Your task to perform on an android device: change the clock display to show seconds Image 0: 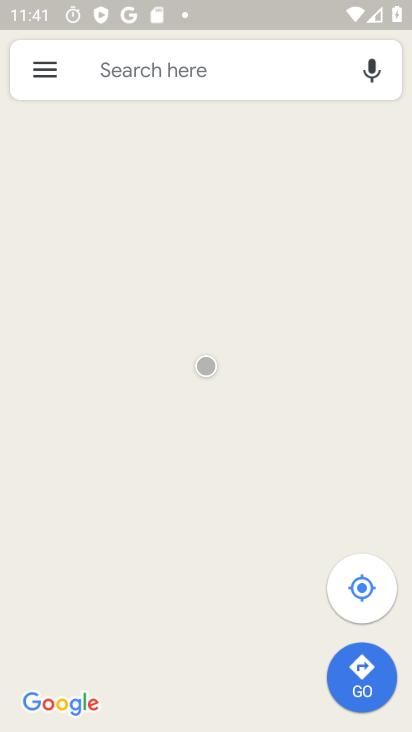
Step 0: press back button
Your task to perform on an android device: change the clock display to show seconds Image 1: 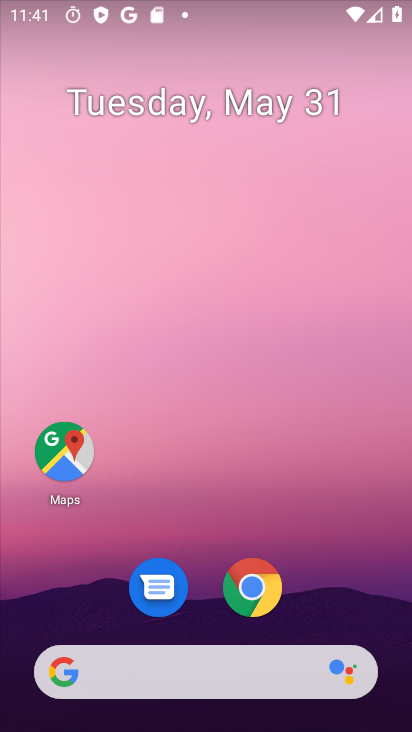
Step 1: drag from (309, 561) to (231, 151)
Your task to perform on an android device: change the clock display to show seconds Image 2: 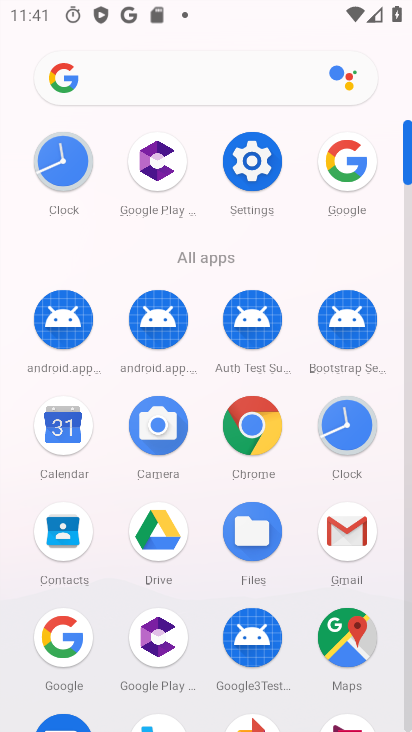
Step 2: click (64, 160)
Your task to perform on an android device: change the clock display to show seconds Image 3: 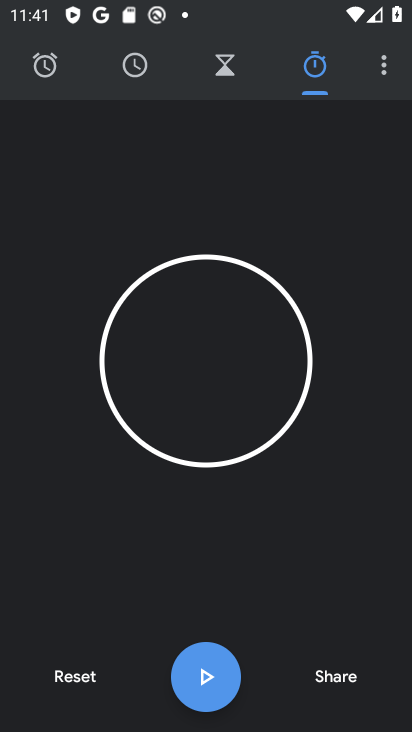
Step 3: click (386, 66)
Your task to perform on an android device: change the clock display to show seconds Image 4: 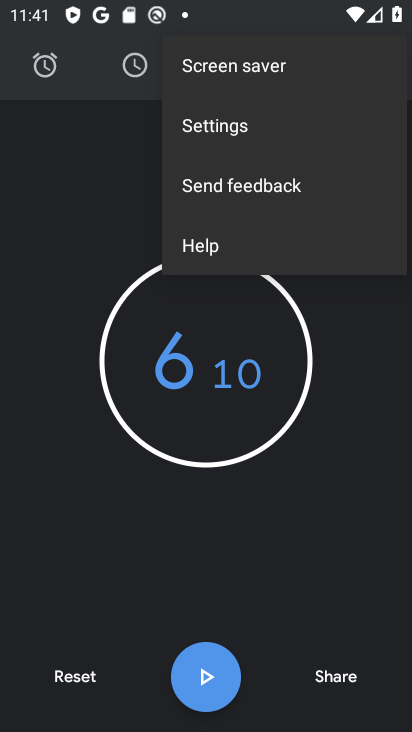
Step 4: click (236, 126)
Your task to perform on an android device: change the clock display to show seconds Image 5: 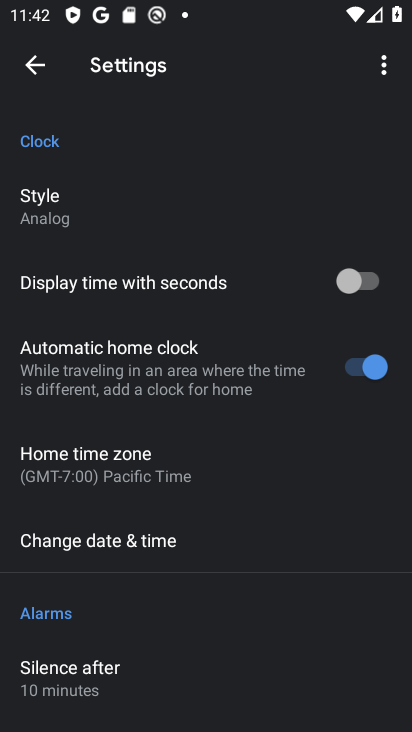
Step 5: click (345, 282)
Your task to perform on an android device: change the clock display to show seconds Image 6: 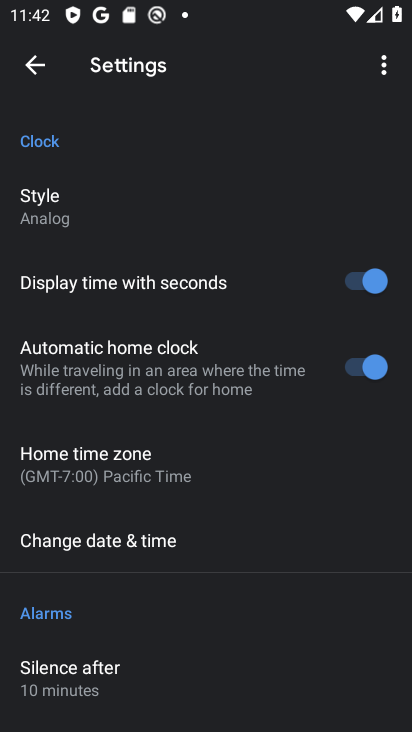
Step 6: task complete